Your task to perform on an android device: clear history in the chrome app Image 0: 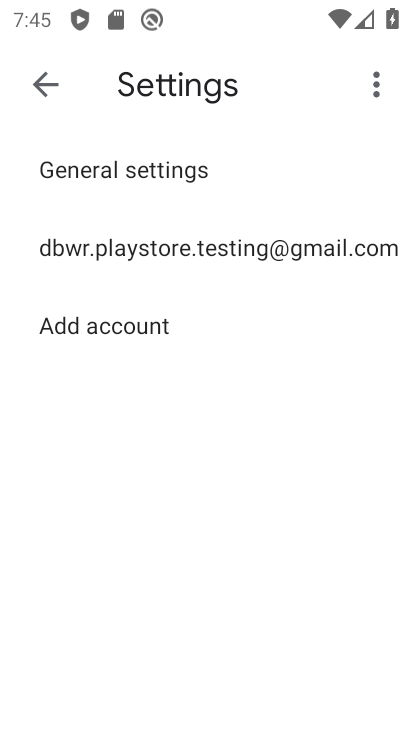
Step 0: press home button
Your task to perform on an android device: clear history in the chrome app Image 1: 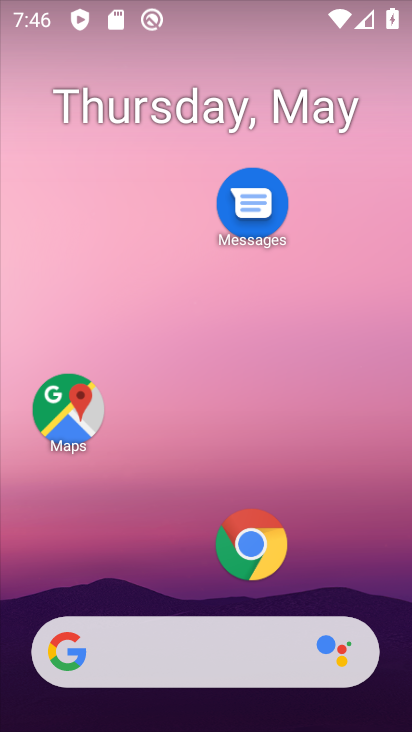
Step 1: click (256, 545)
Your task to perform on an android device: clear history in the chrome app Image 2: 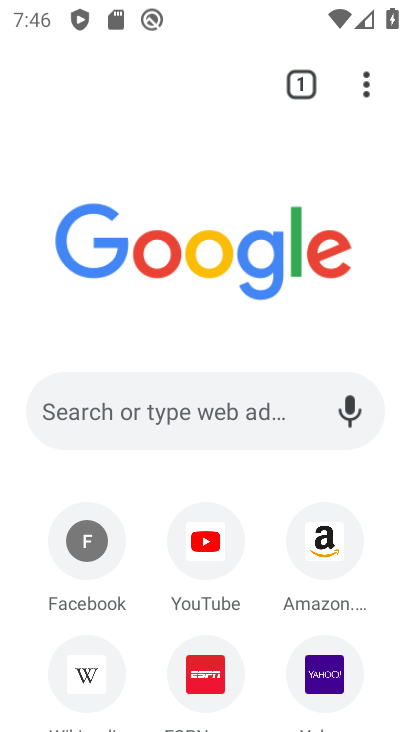
Step 2: click (364, 84)
Your task to perform on an android device: clear history in the chrome app Image 3: 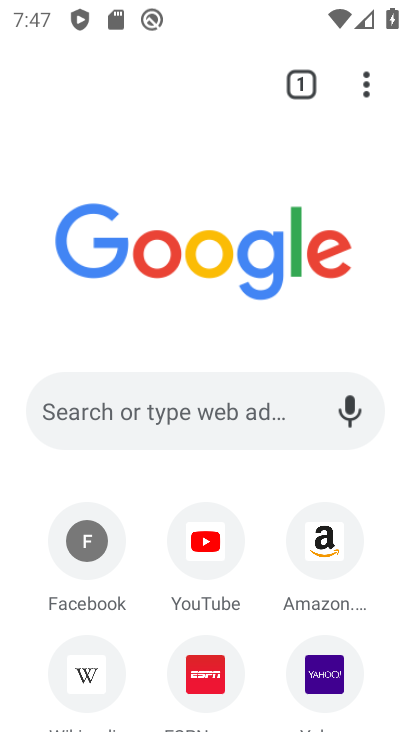
Step 3: click (371, 86)
Your task to perform on an android device: clear history in the chrome app Image 4: 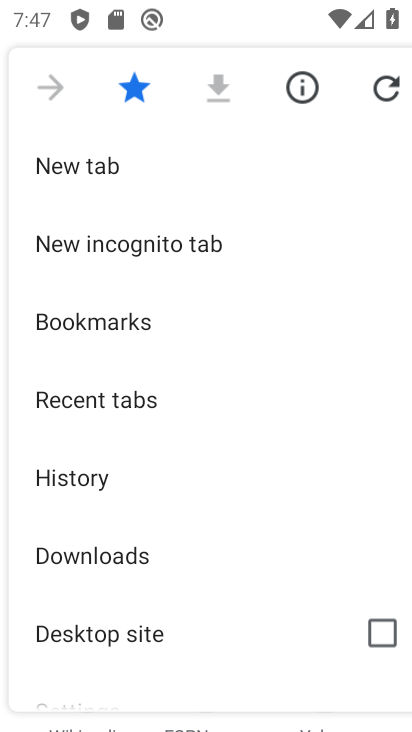
Step 4: drag from (65, 567) to (211, 142)
Your task to perform on an android device: clear history in the chrome app Image 5: 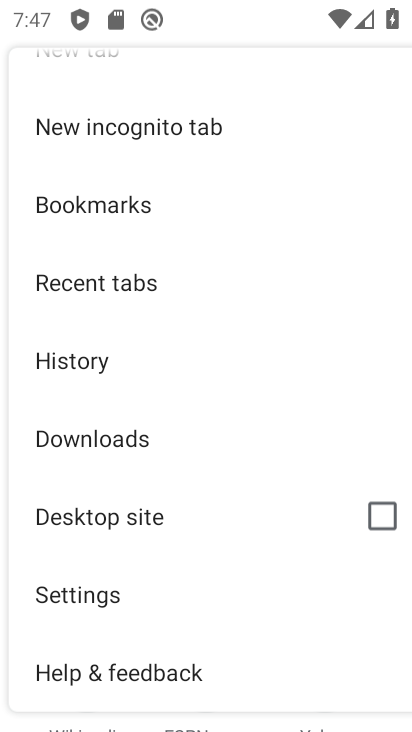
Step 5: click (96, 352)
Your task to perform on an android device: clear history in the chrome app Image 6: 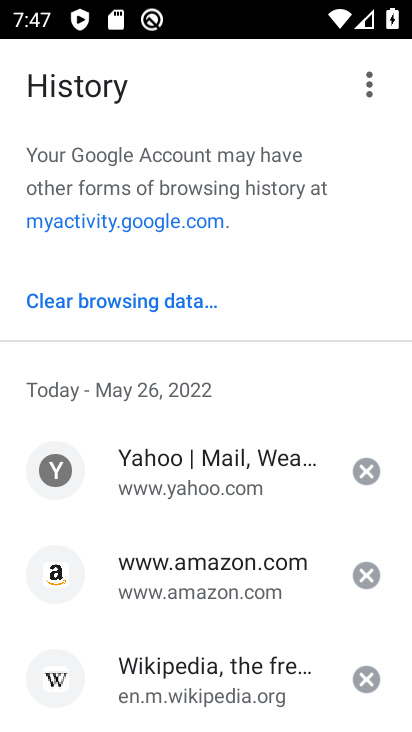
Step 6: click (149, 294)
Your task to perform on an android device: clear history in the chrome app Image 7: 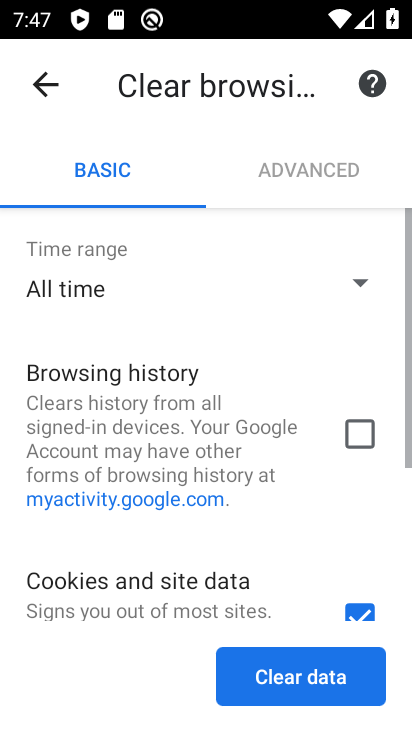
Step 7: click (321, 662)
Your task to perform on an android device: clear history in the chrome app Image 8: 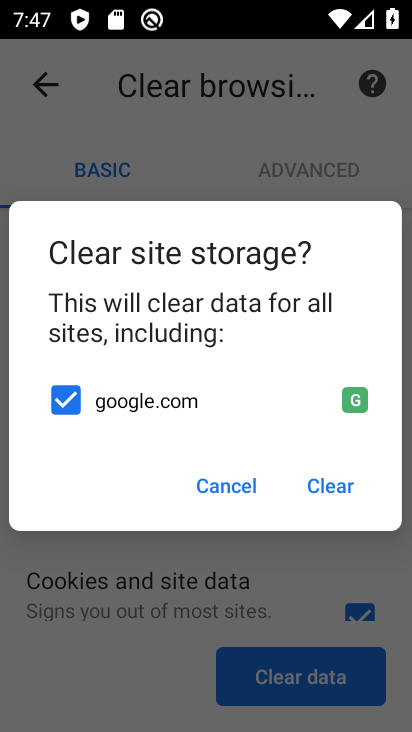
Step 8: click (337, 490)
Your task to perform on an android device: clear history in the chrome app Image 9: 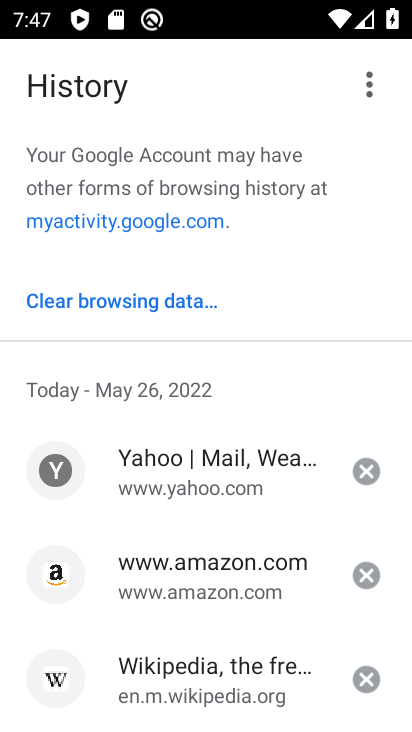
Step 9: task complete